Your task to perform on an android device: open app "Grab" (install if not already installed), go to login, and select forgot password Image 0: 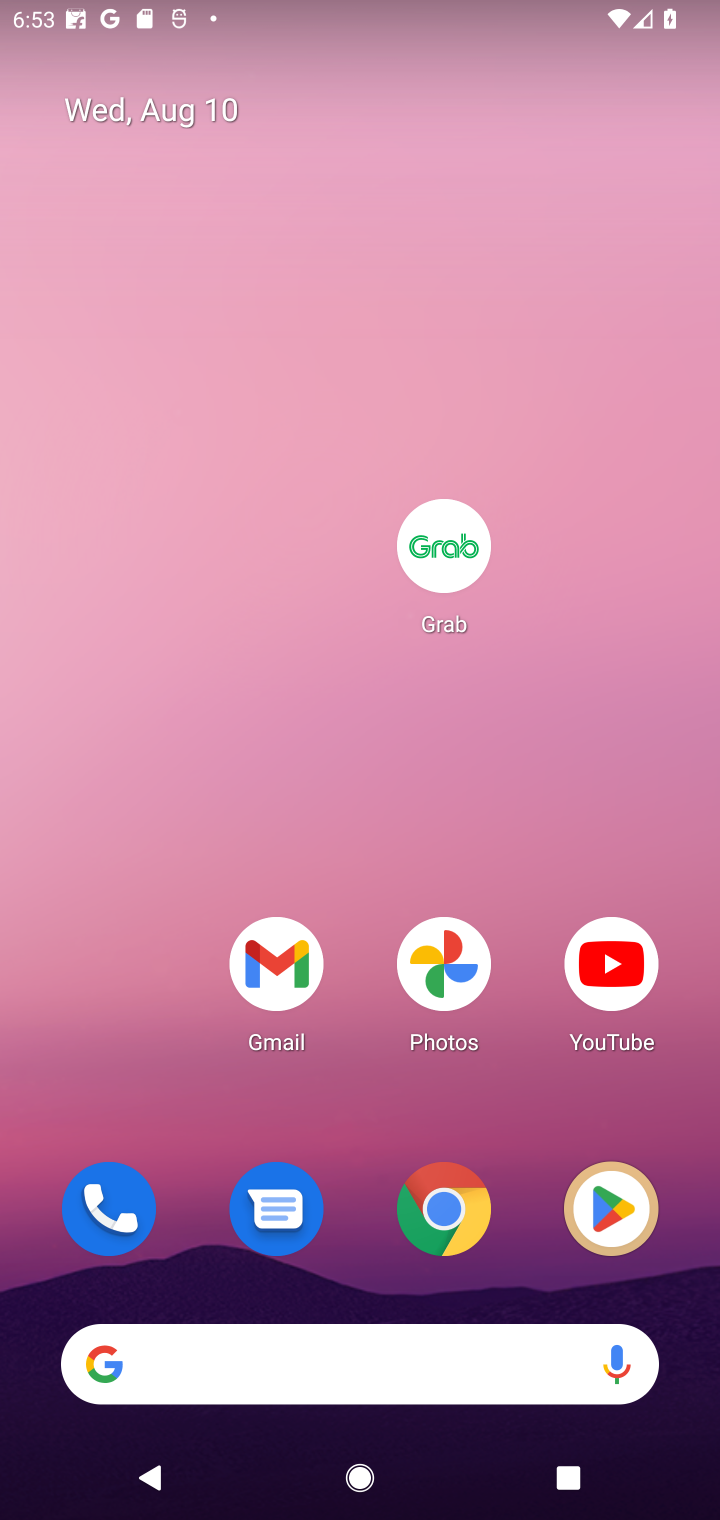
Step 0: drag from (335, 1307) to (335, 1073)
Your task to perform on an android device: open app "Grab" (install if not already installed), go to login, and select forgot password Image 1: 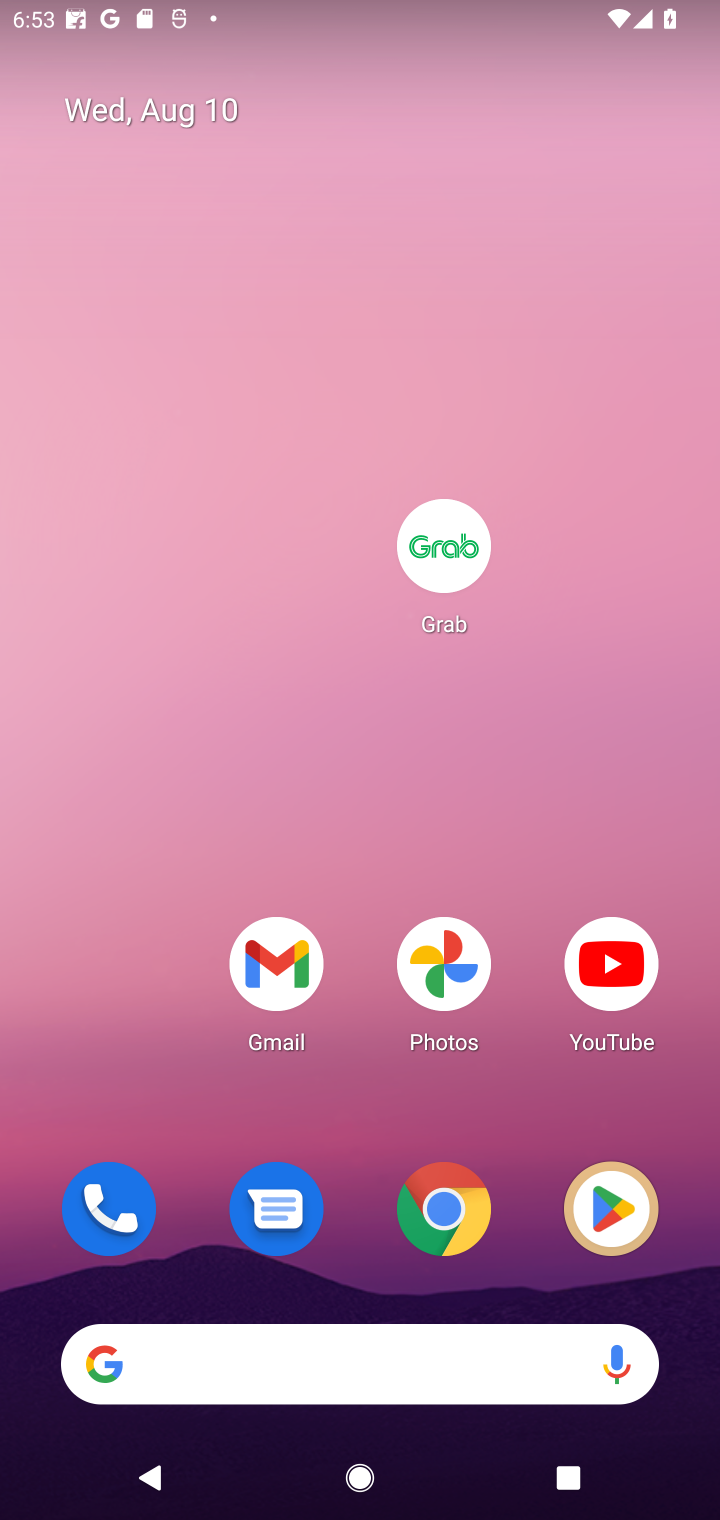
Step 1: click (457, 570)
Your task to perform on an android device: open app "Grab" (install if not already installed), go to login, and select forgot password Image 2: 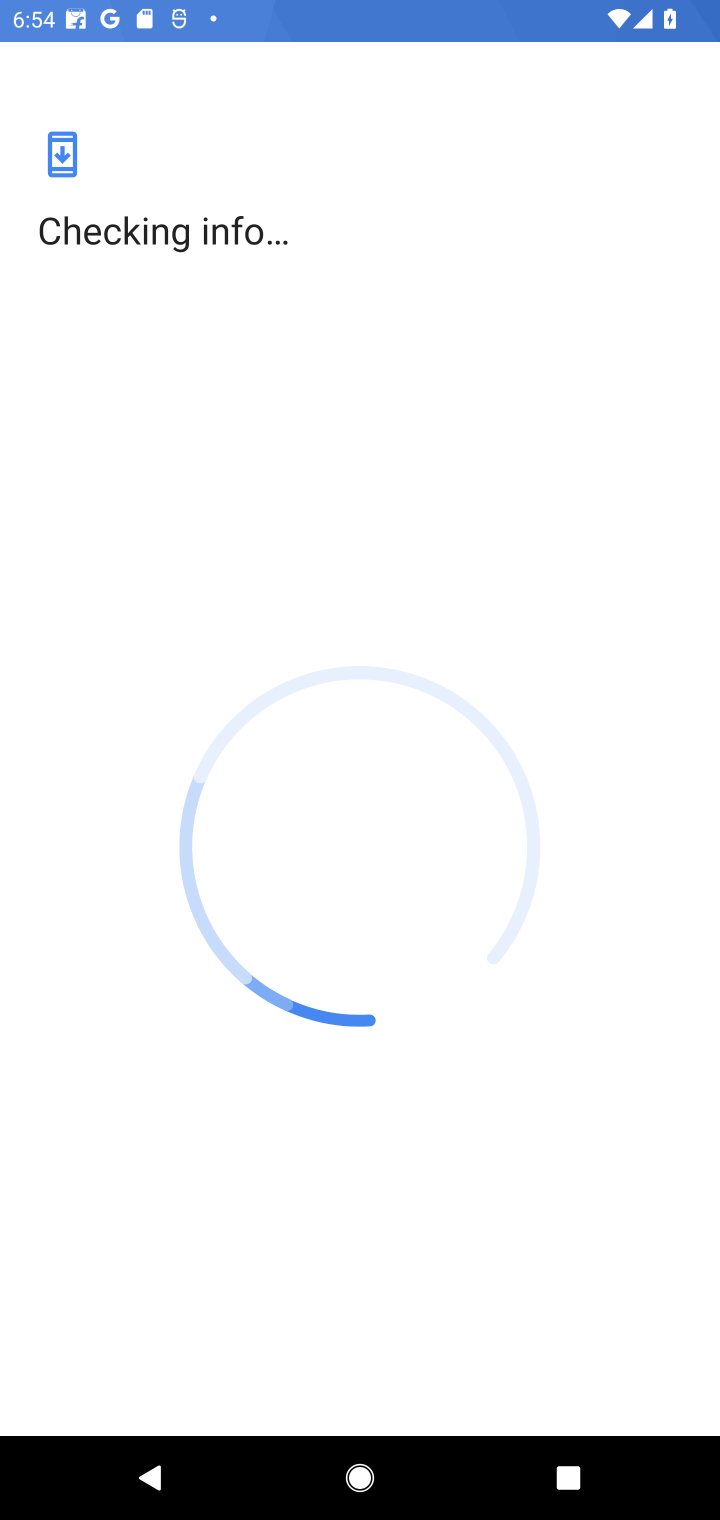
Step 2: task complete